Your task to perform on an android device: change text size in settings app Image 0: 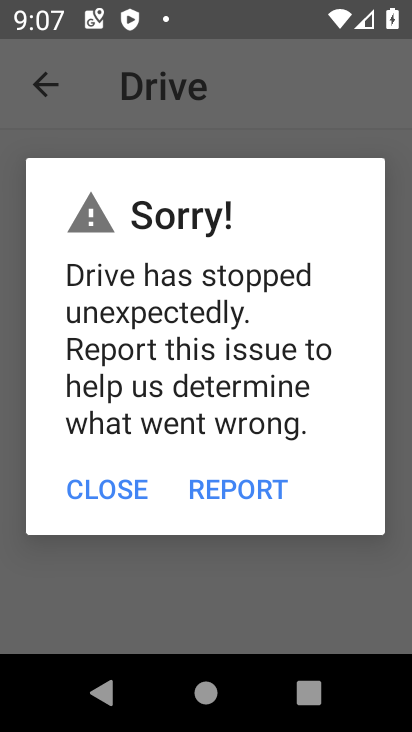
Step 0: press home button
Your task to perform on an android device: change text size in settings app Image 1: 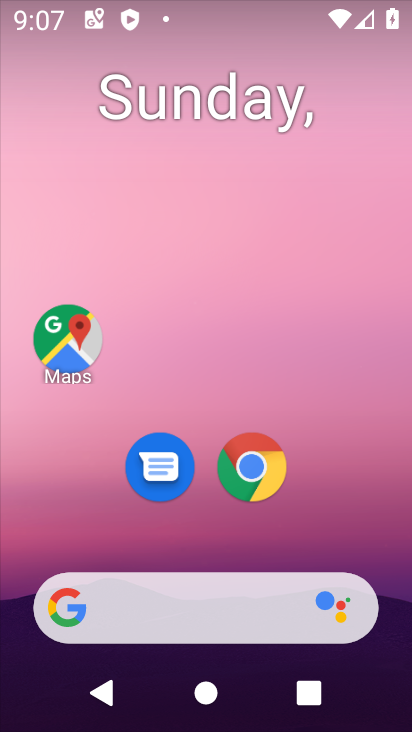
Step 1: drag from (383, 519) to (336, 121)
Your task to perform on an android device: change text size in settings app Image 2: 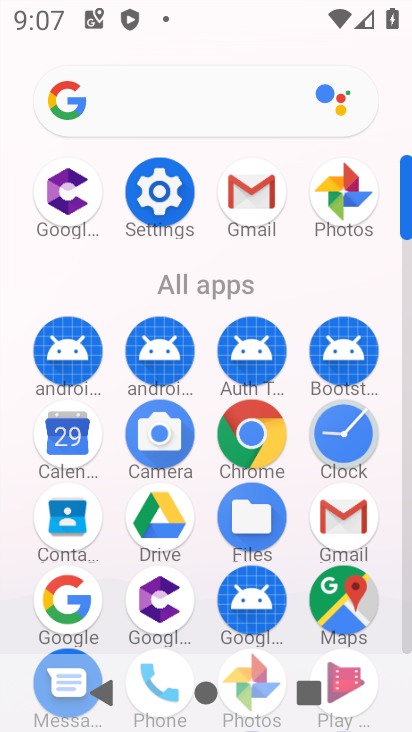
Step 2: click (134, 180)
Your task to perform on an android device: change text size in settings app Image 3: 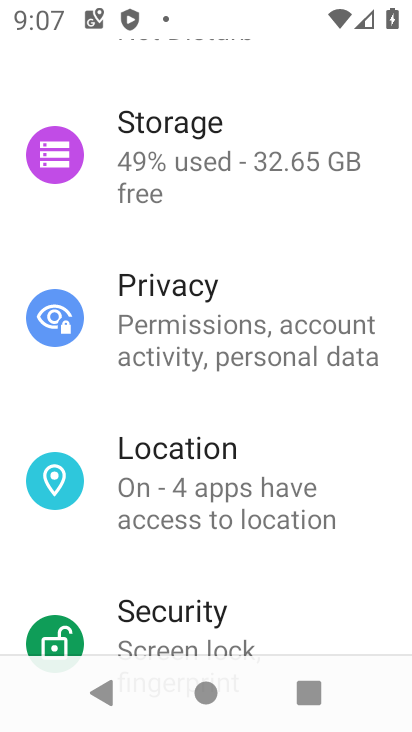
Step 3: drag from (261, 223) to (150, 700)
Your task to perform on an android device: change text size in settings app Image 4: 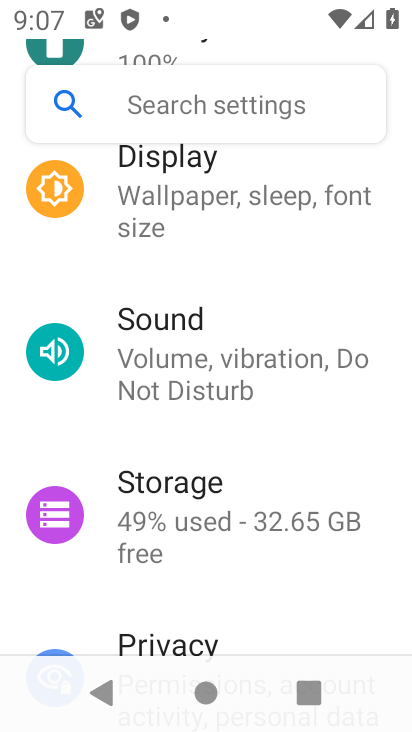
Step 4: click (185, 211)
Your task to perform on an android device: change text size in settings app Image 5: 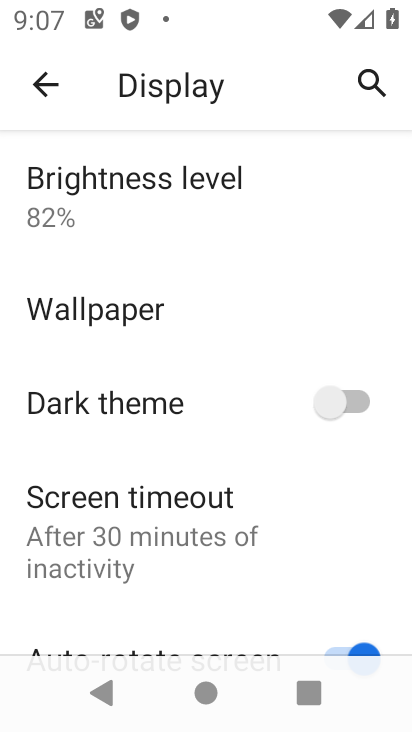
Step 5: drag from (249, 583) to (188, 132)
Your task to perform on an android device: change text size in settings app Image 6: 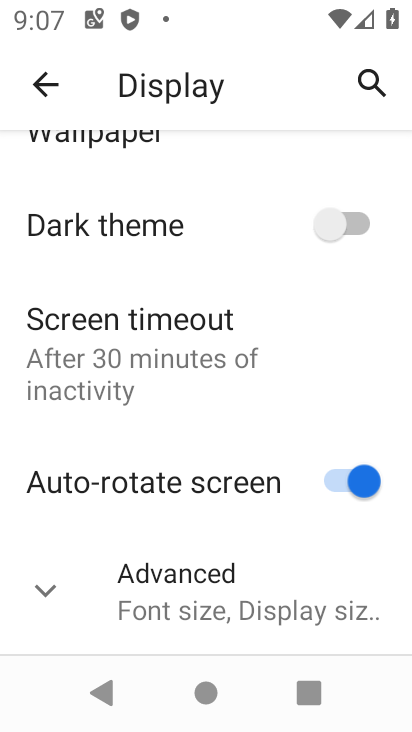
Step 6: click (209, 565)
Your task to perform on an android device: change text size in settings app Image 7: 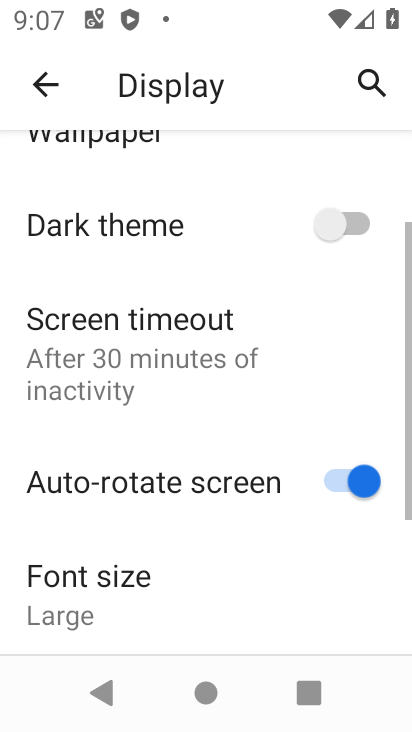
Step 7: drag from (209, 565) to (175, 129)
Your task to perform on an android device: change text size in settings app Image 8: 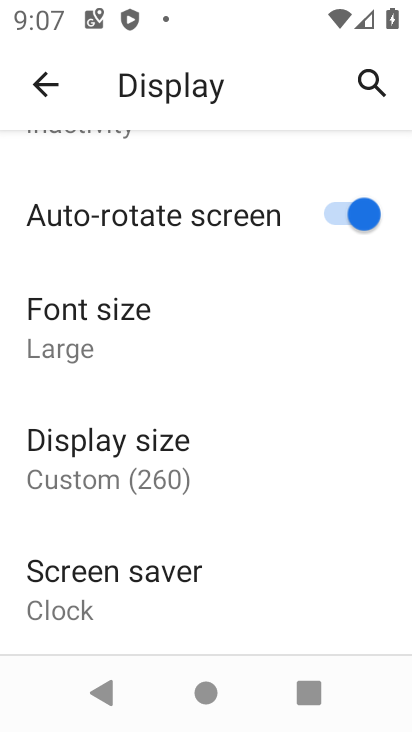
Step 8: click (194, 342)
Your task to perform on an android device: change text size in settings app Image 9: 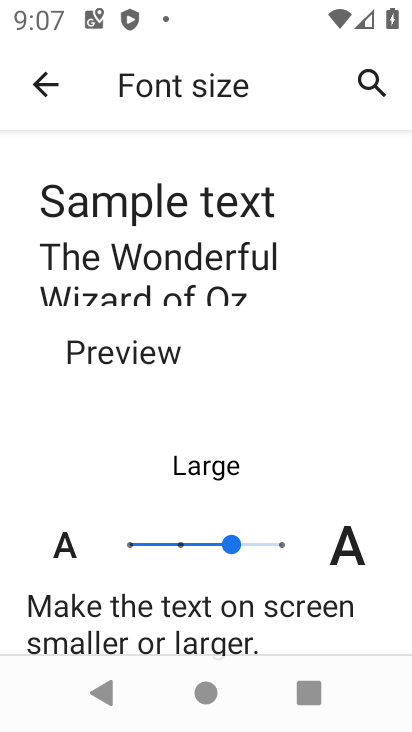
Step 9: click (181, 554)
Your task to perform on an android device: change text size in settings app Image 10: 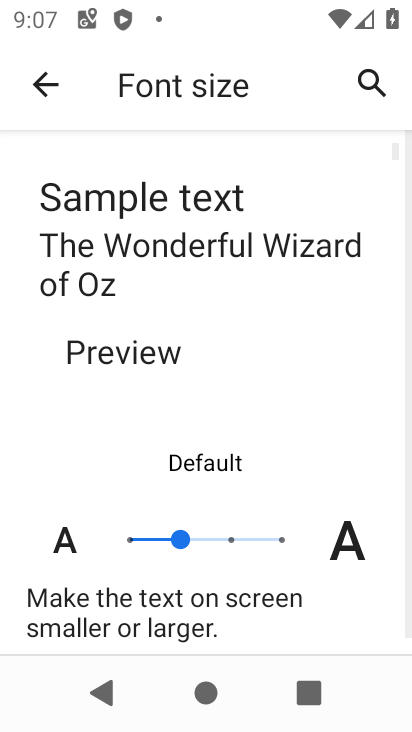
Step 10: task complete